Your task to perform on an android device: Play the last video I watched on Youtube Image 0: 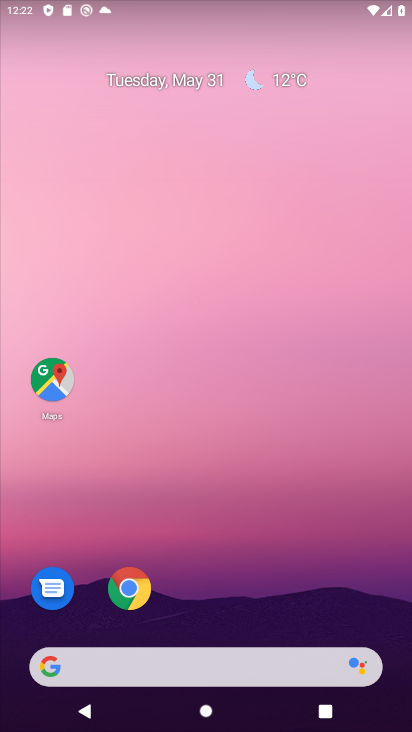
Step 0: drag from (390, 602) to (367, 123)
Your task to perform on an android device: Play the last video I watched on Youtube Image 1: 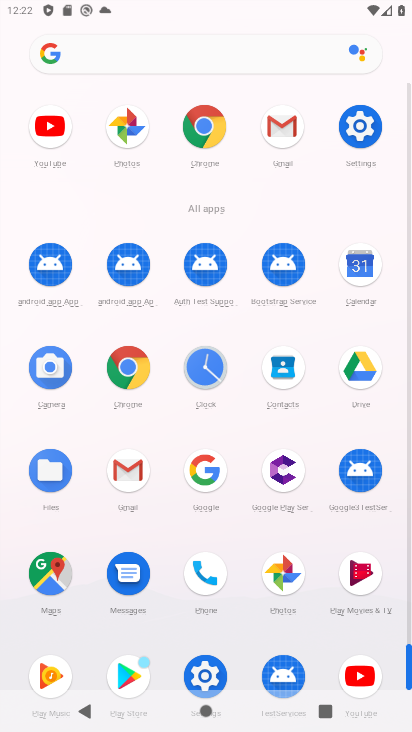
Step 1: click (352, 674)
Your task to perform on an android device: Play the last video I watched on Youtube Image 2: 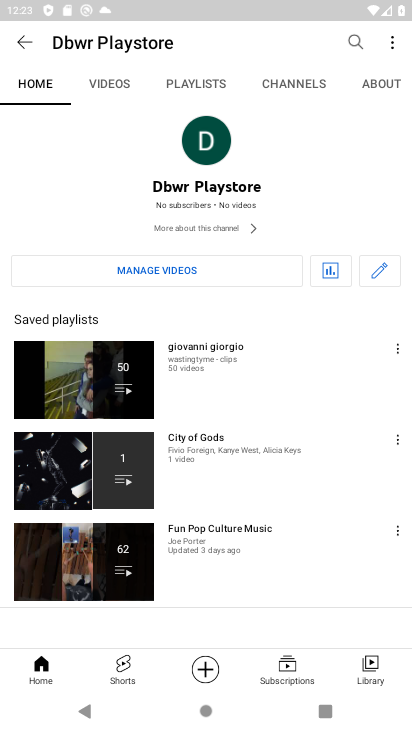
Step 2: click (362, 672)
Your task to perform on an android device: Play the last video I watched on Youtube Image 3: 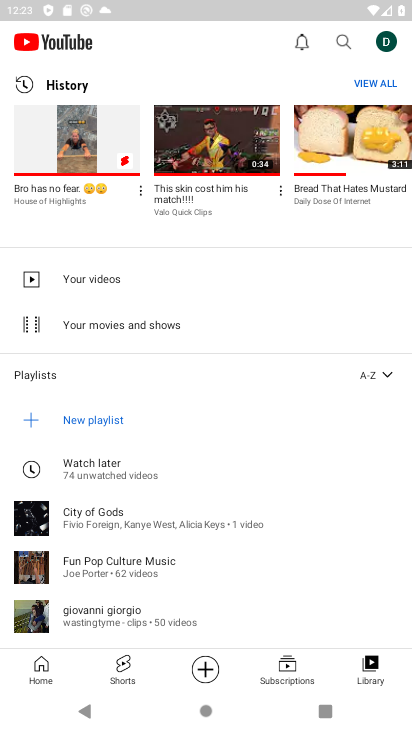
Step 3: click (76, 147)
Your task to perform on an android device: Play the last video I watched on Youtube Image 4: 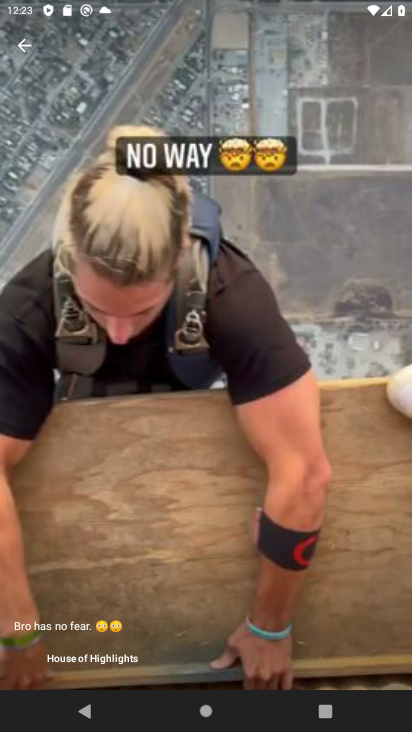
Step 4: task complete